Your task to perform on an android device: Go to display settings Image 0: 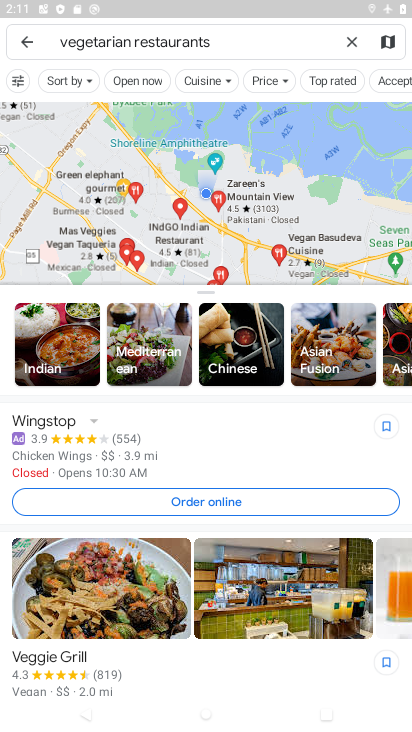
Step 0: press home button
Your task to perform on an android device: Go to display settings Image 1: 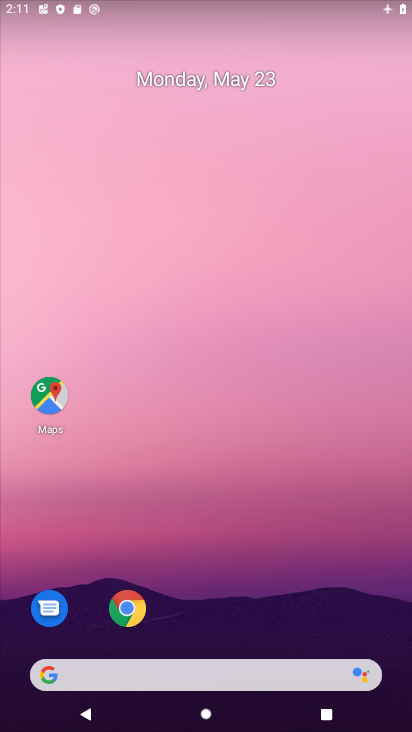
Step 1: drag from (203, 663) to (187, 67)
Your task to perform on an android device: Go to display settings Image 2: 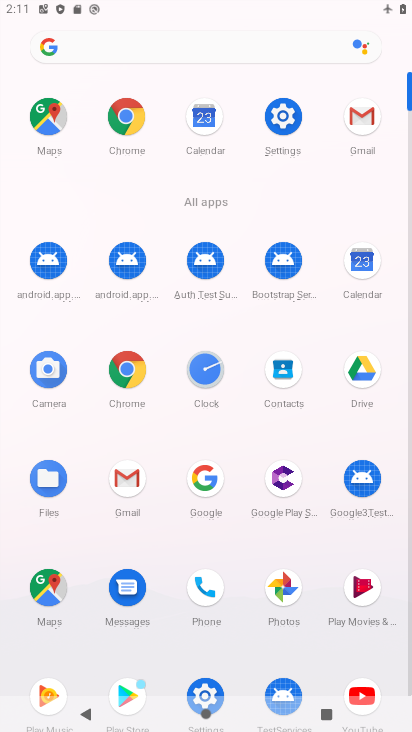
Step 2: click (278, 126)
Your task to perform on an android device: Go to display settings Image 3: 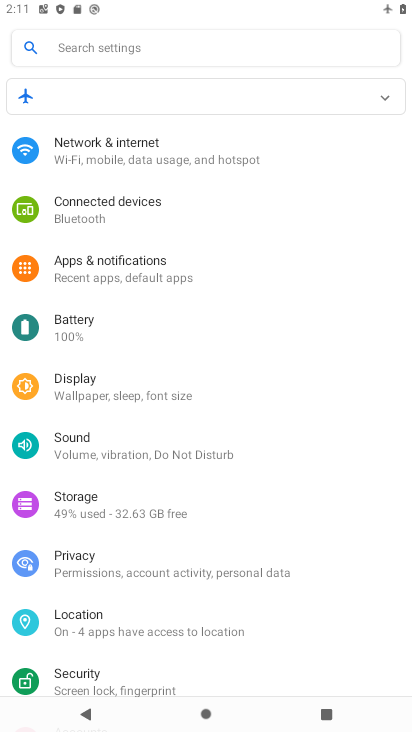
Step 3: click (53, 381)
Your task to perform on an android device: Go to display settings Image 4: 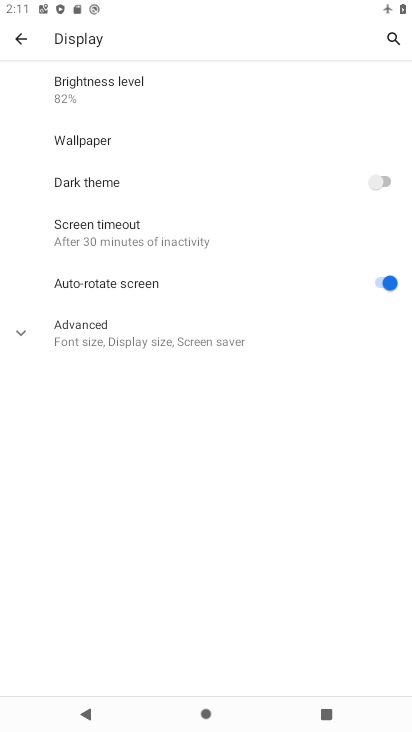
Step 4: click (84, 347)
Your task to perform on an android device: Go to display settings Image 5: 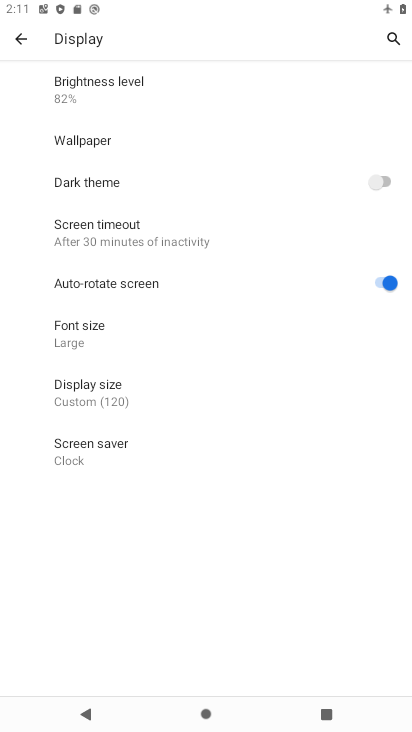
Step 5: task complete